Your task to perform on an android device: delete browsing data in the chrome app Image 0: 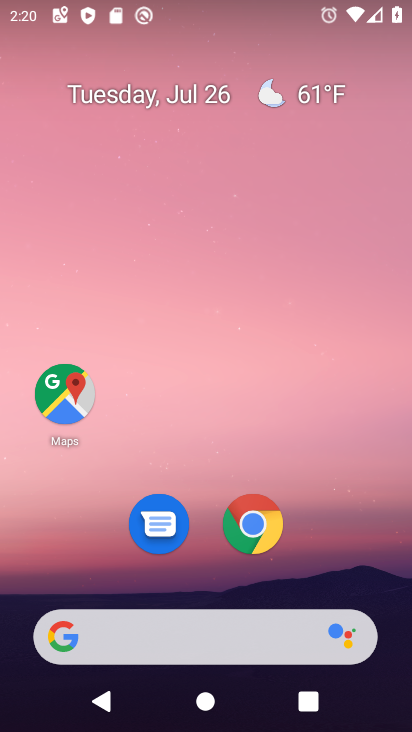
Step 0: press home button
Your task to perform on an android device: delete browsing data in the chrome app Image 1: 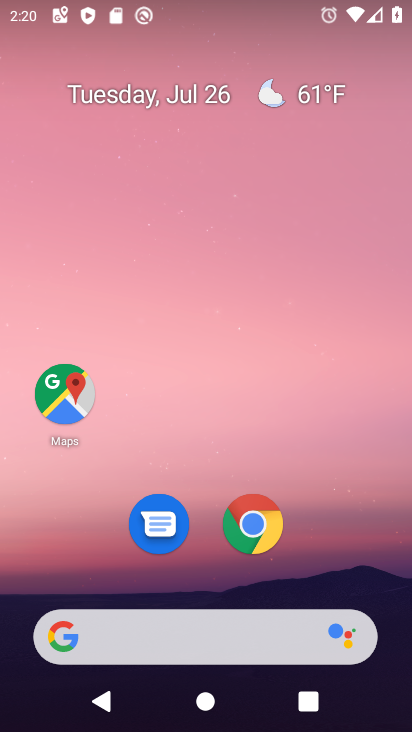
Step 1: drag from (163, 605) to (221, 174)
Your task to perform on an android device: delete browsing data in the chrome app Image 2: 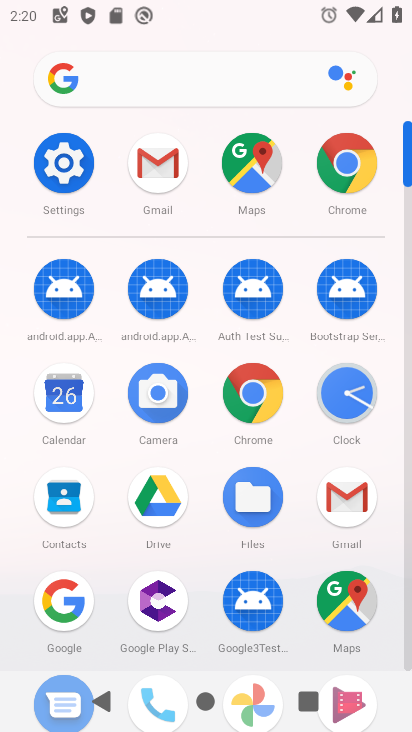
Step 2: click (345, 174)
Your task to perform on an android device: delete browsing data in the chrome app Image 3: 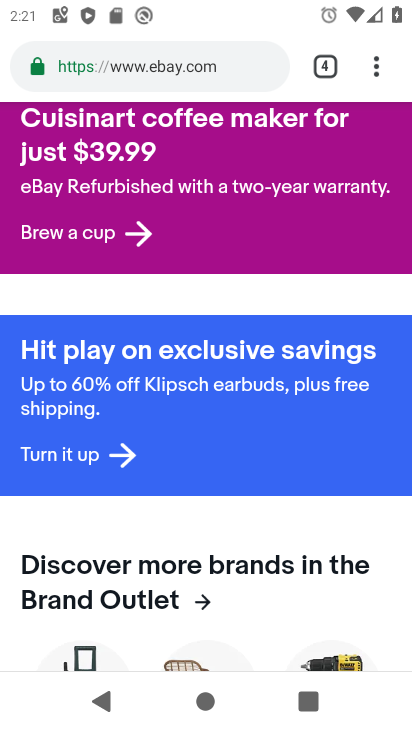
Step 3: click (344, 166)
Your task to perform on an android device: delete browsing data in the chrome app Image 4: 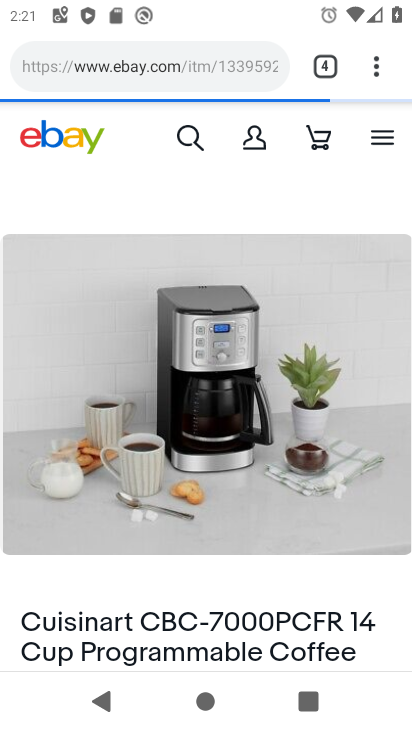
Step 4: drag from (374, 64) to (150, 534)
Your task to perform on an android device: delete browsing data in the chrome app Image 5: 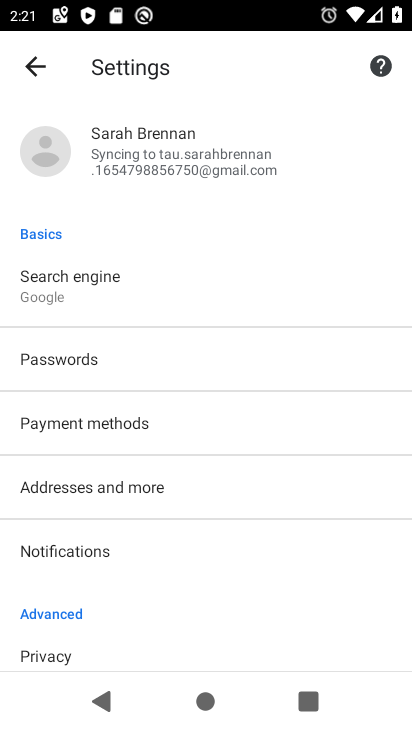
Step 5: drag from (131, 601) to (260, 156)
Your task to perform on an android device: delete browsing data in the chrome app Image 6: 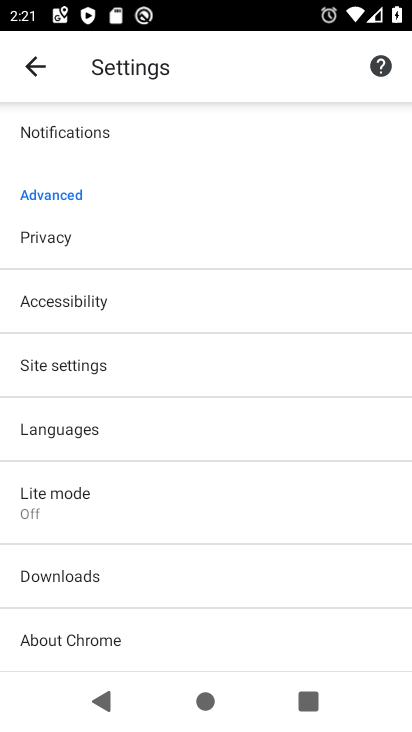
Step 6: click (56, 247)
Your task to perform on an android device: delete browsing data in the chrome app Image 7: 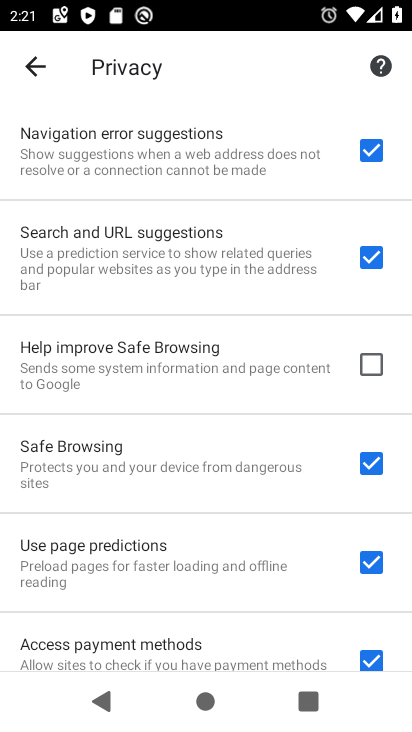
Step 7: drag from (190, 645) to (279, 162)
Your task to perform on an android device: delete browsing data in the chrome app Image 8: 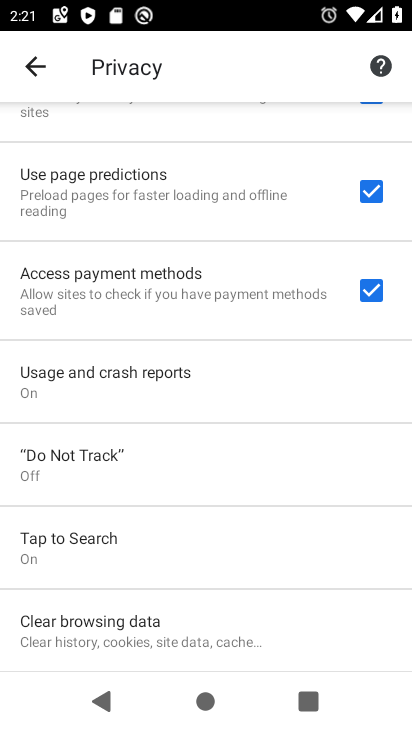
Step 8: drag from (202, 593) to (305, 147)
Your task to perform on an android device: delete browsing data in the chrome app Image 9: 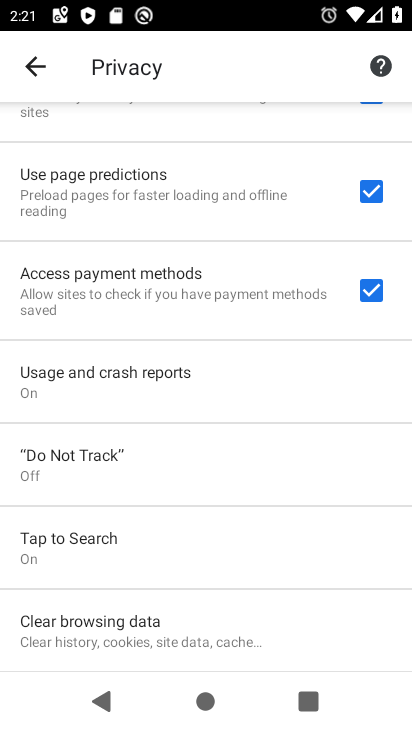
Step 9: click (166, 637)
Your task to perform on an android device: delete browsing data in the chrome app Image 10: 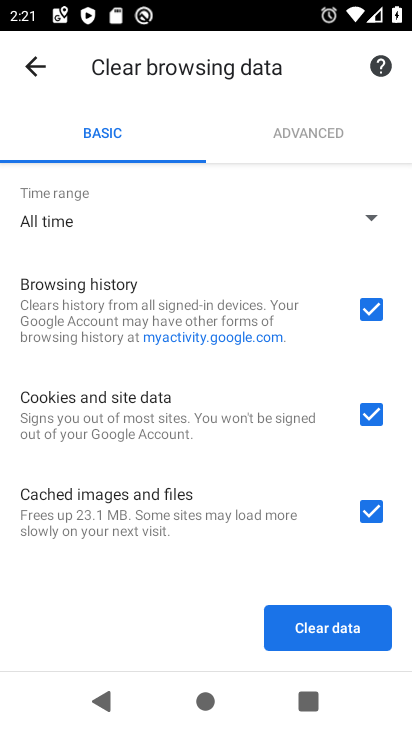
Step 10: click (317, 625)
Your task to perform on an android device: delete browsing data in the chrome app Image 11: 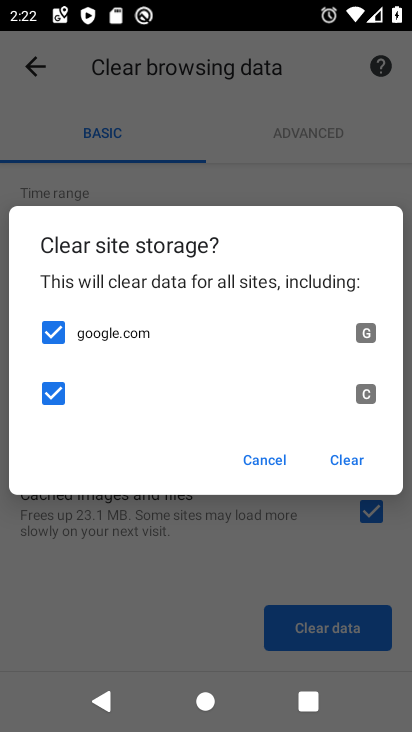
Step 11: click (341, 464)
Your task to perform on an android device: delete browsing data in the chrome app Image 12: 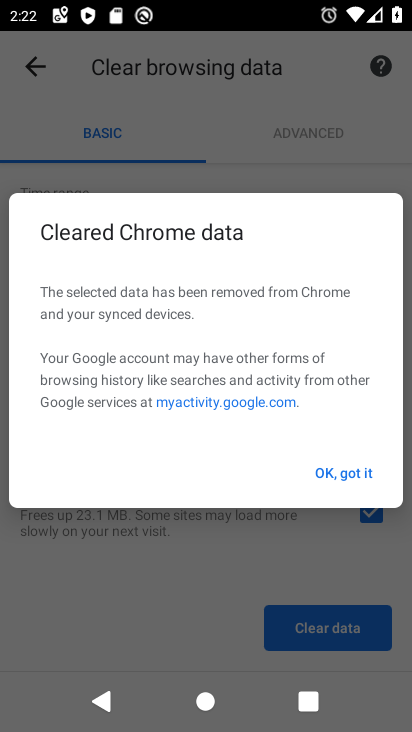
Step 12: click (332, 470)
Your task to perform on an android device: delete browsing data in the chrome app Image 13: 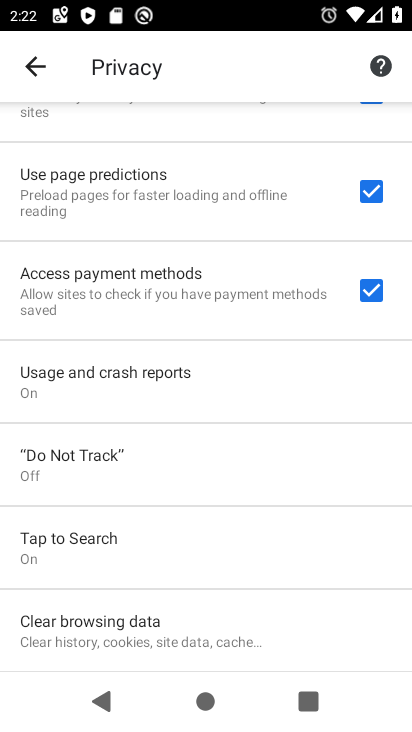
Step 13: task complete